Your task to perform on an android device: Go to settings Image 0: 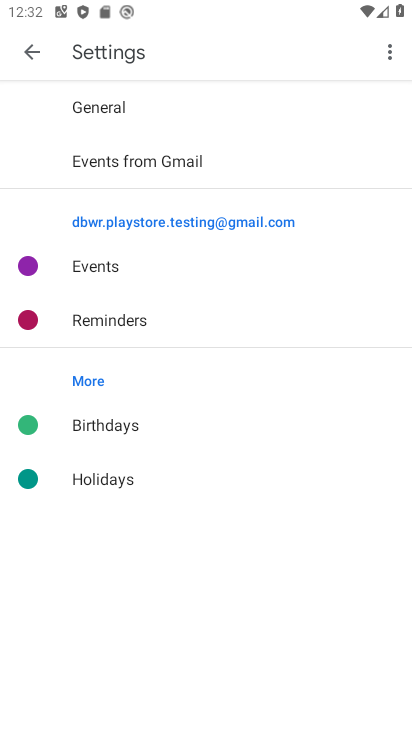
Step 0: press home button
Your task to perform on an android device: Go to settings Image 1: 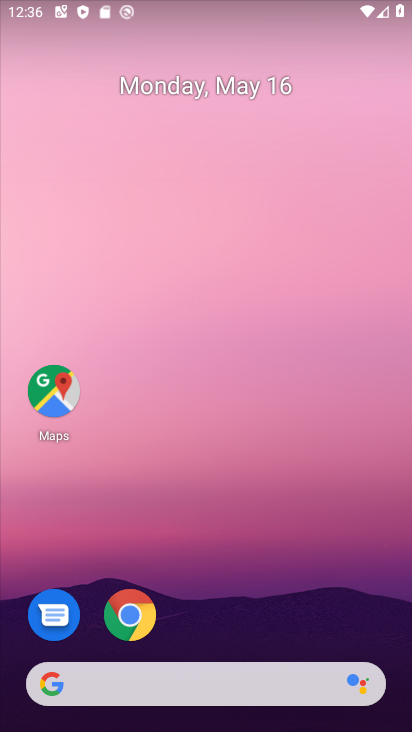
Step 1: drag from (290, 684) to (199, 168)
Your task to perform on an android device: Go to settings Image 2: 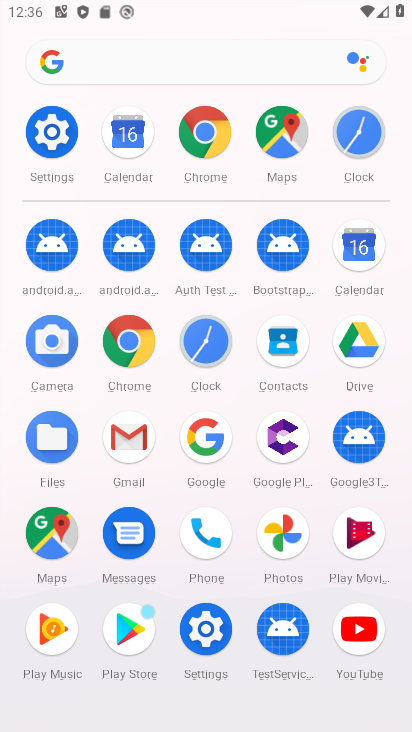
Step 2: click (53, 126)
Your task to perform on an android device: Go to settings Image 3: 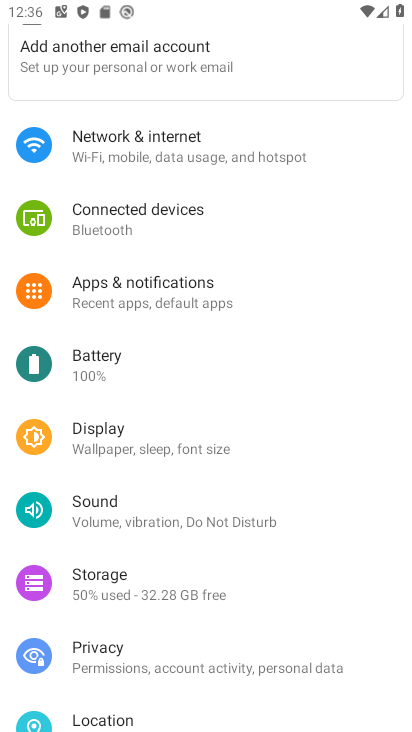
Step 3: task complete